Your task to perform on an android device: move a message to another label in the gmail app Image 0: 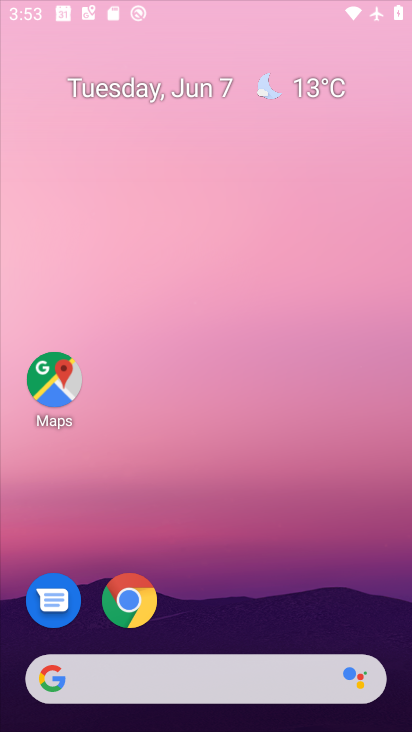
Step 0: drag from (272, 439) to (287, 131)
Your task to perform on an android device: move a message to another label in the gmail app Image 1: 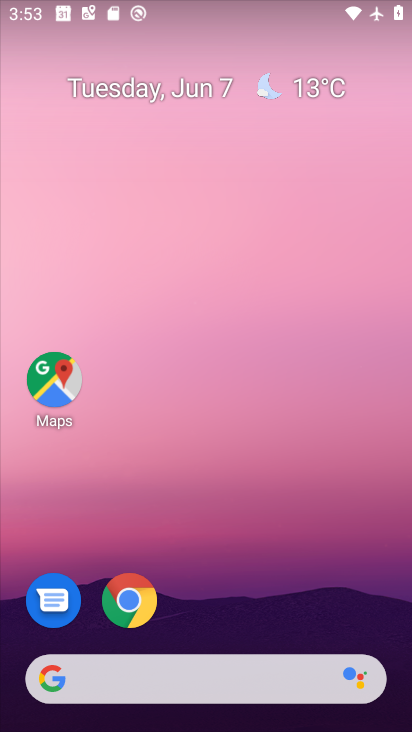
Step 1: drag from (316, 488) to (257, 37)
Your task to perform on an android device: move a message to another label in the gmail app Image 2: 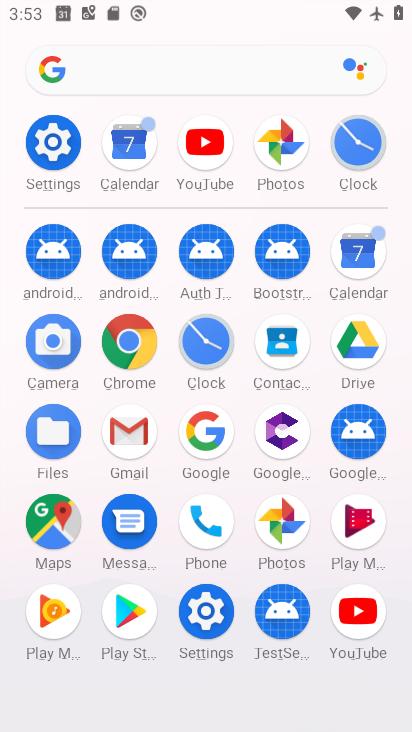
Step 2: click (129, 442)
Your task to perform on an android device: move a message to another label in the gmail app Image 3: 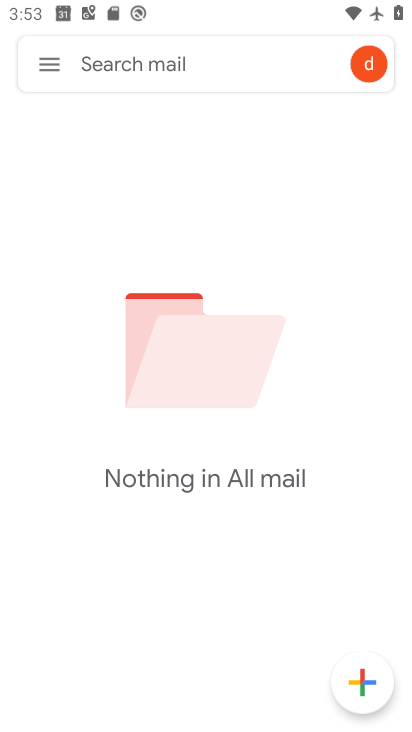
Step 3: click (45, 65)
Your task to perform on an android device: move a message to another label in the gmail app Image 4: 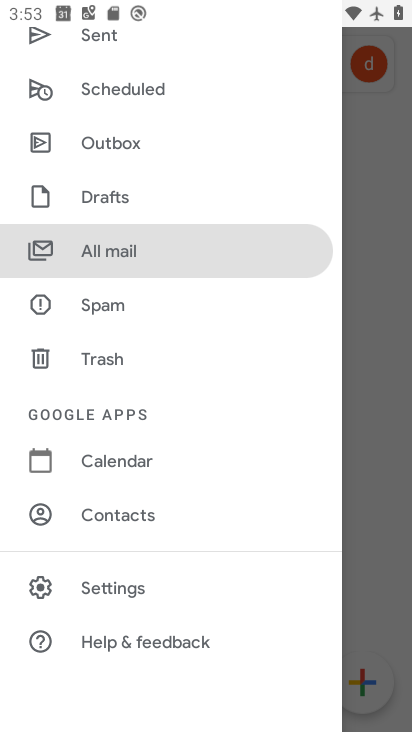
Step 4: click (170, 263)
Your task to perform on an android device: move a message to another label in the gmail app Image 5: 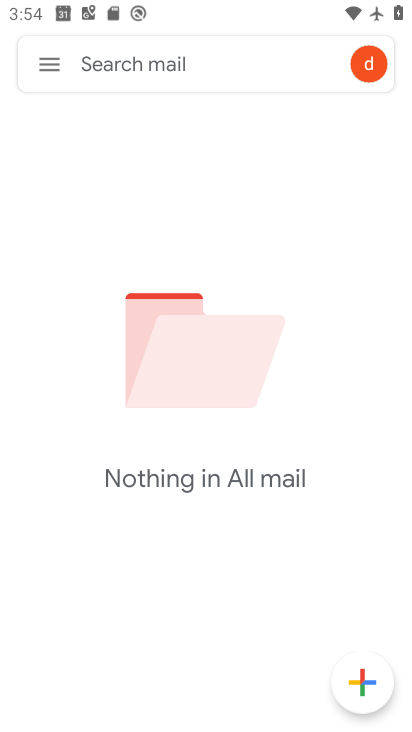
Step 5: task complete